Your task to perform on an android device: Clear the shopping cart on costco.com. Add "sony triple a" to the cart on costco.com, then select checkout. Image 0: 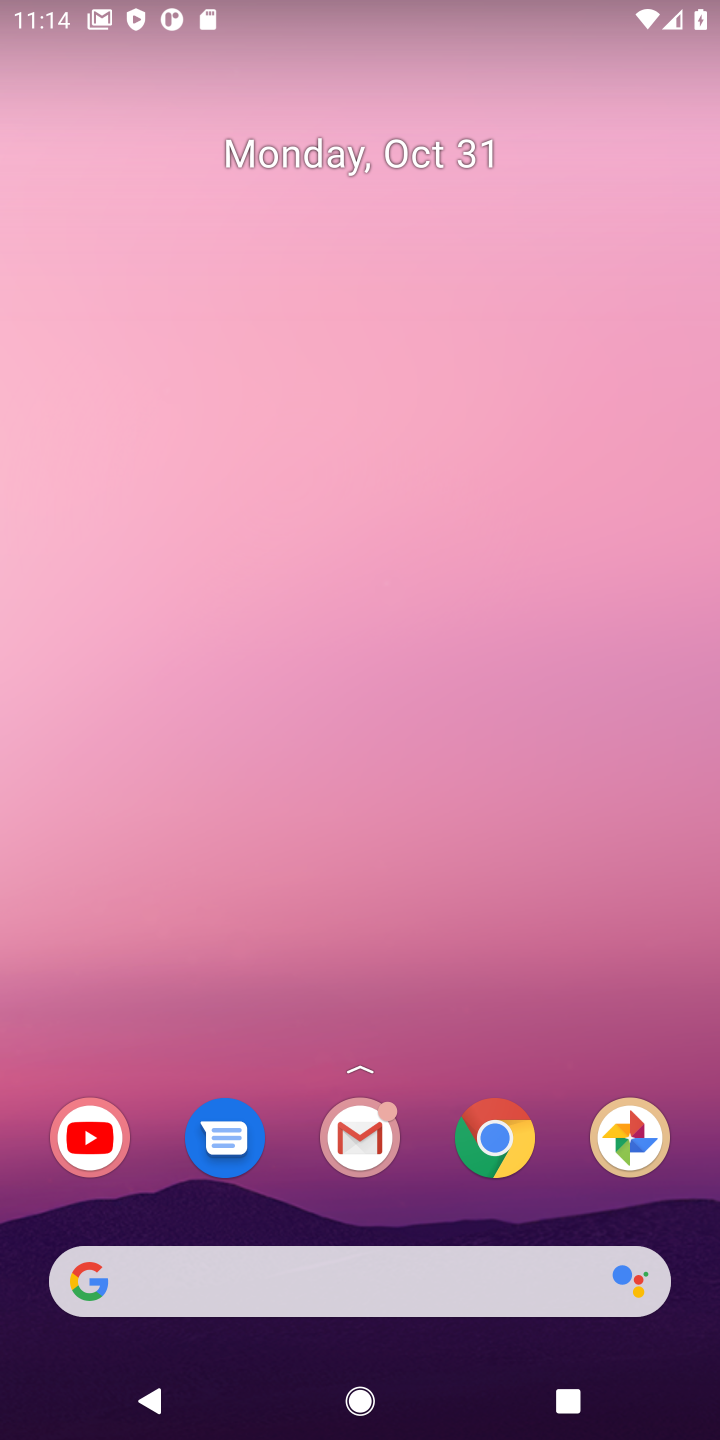
Step 0: click (477, 1128)
Your task to perform on an android device: Clear the shopping cart on costco.com. Add "sony triple a" to the cart on costco.com, then select checkout. Image 1: 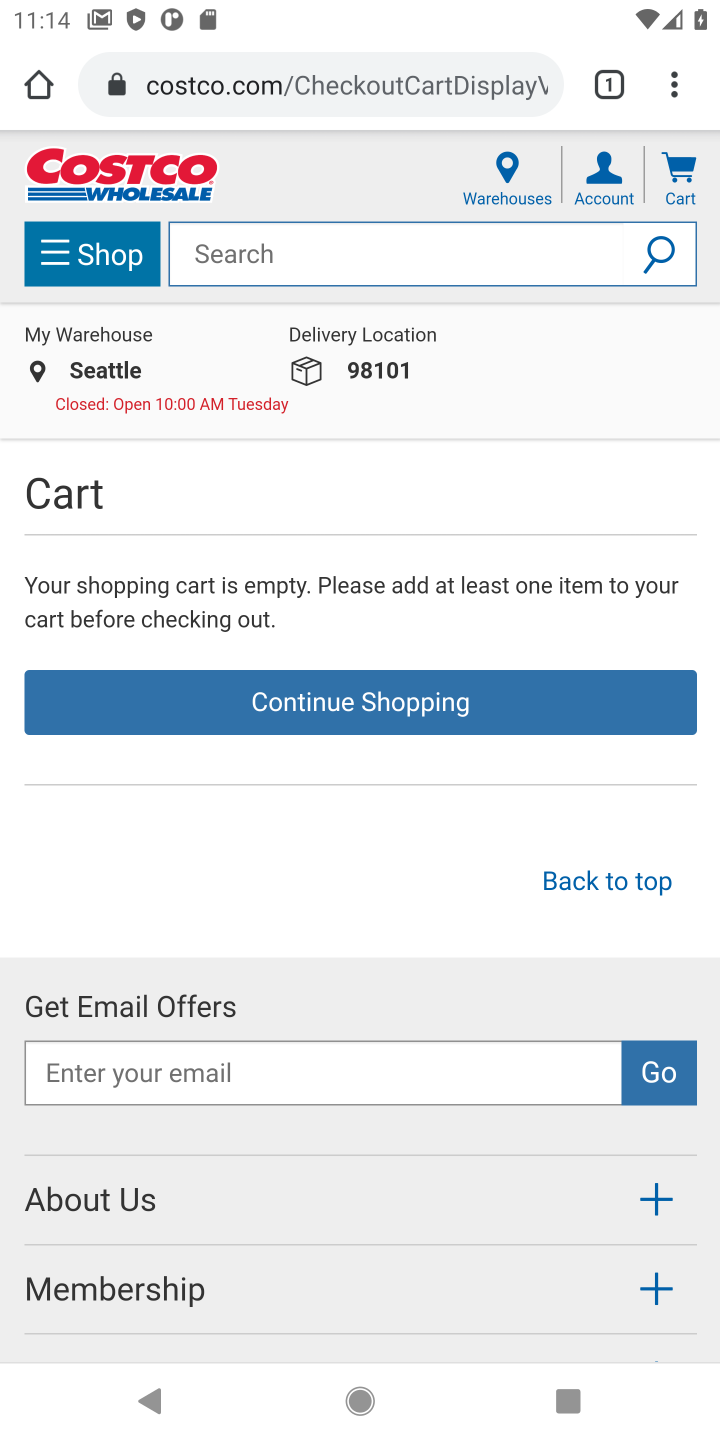
Step 1: click (246, 238)
Your task to perform on an android device: Clear the shopping cart on costco.com. Add "sony triple a" to the cart on costco.com, then select checkout. Image 2: 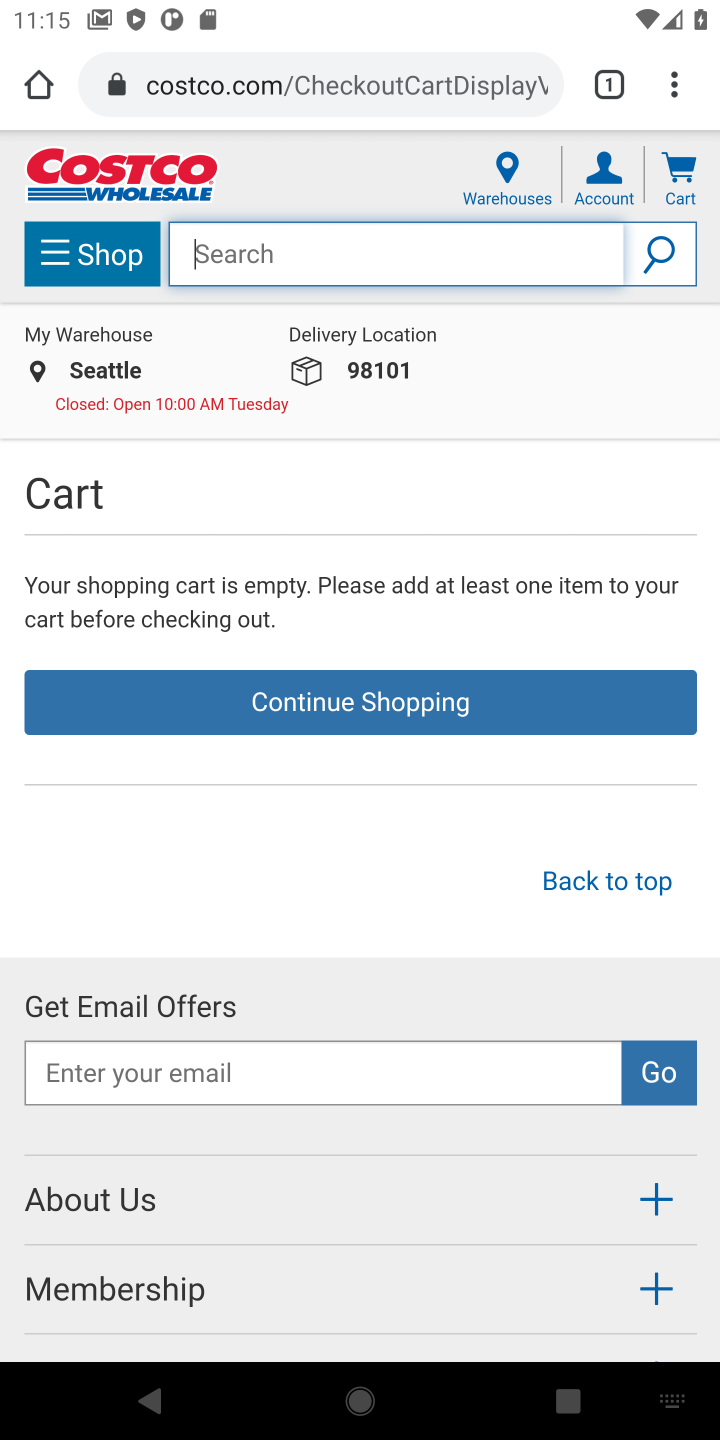
Step 2: type "sony triple a"
Your task to perform on an android device: Clear the shopping cart on costco.com. Add "sony triple a" to the cart on costco.com, then select checkout. Image 3: 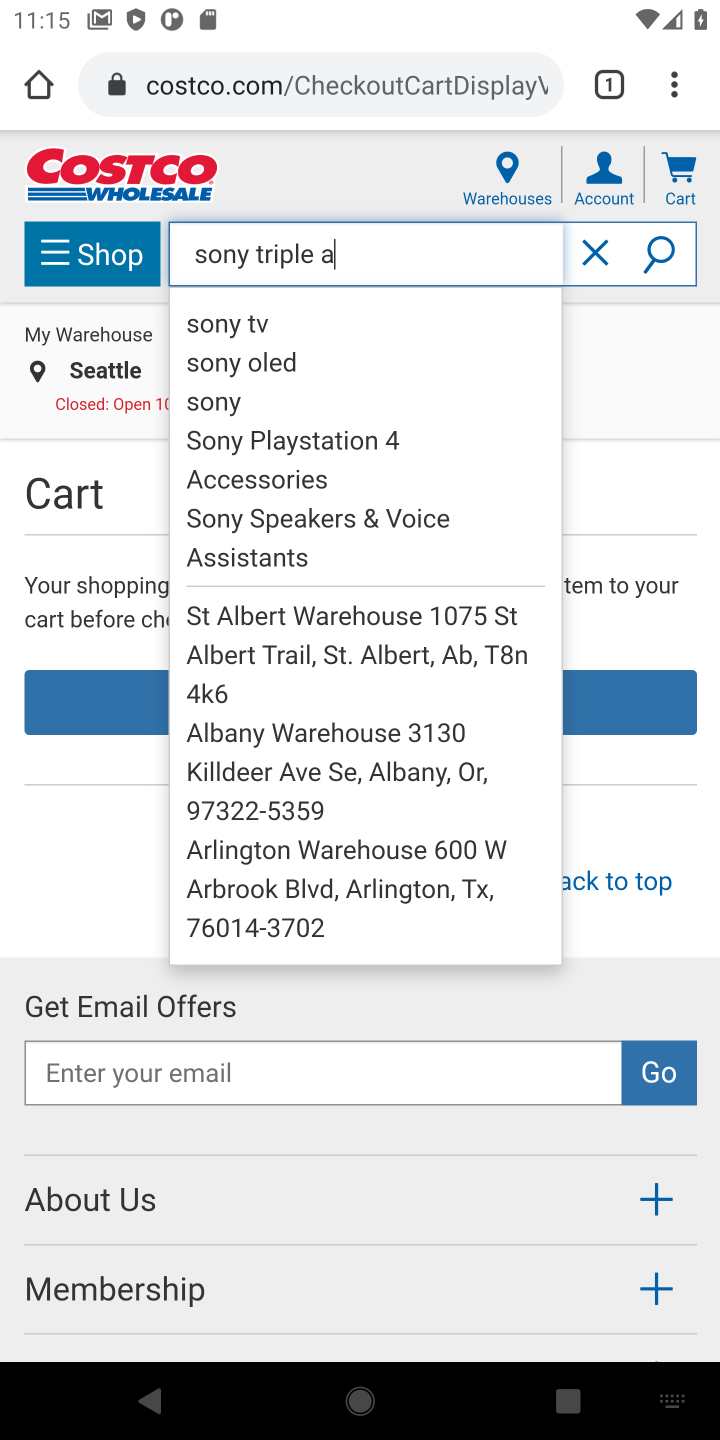
Step 3: click (647, 251)
Your task to perform on an android device: Clear the shopping cart on costco.com. Add "sony triple a" to the cart on costco.com, then select checkout. Image 4: 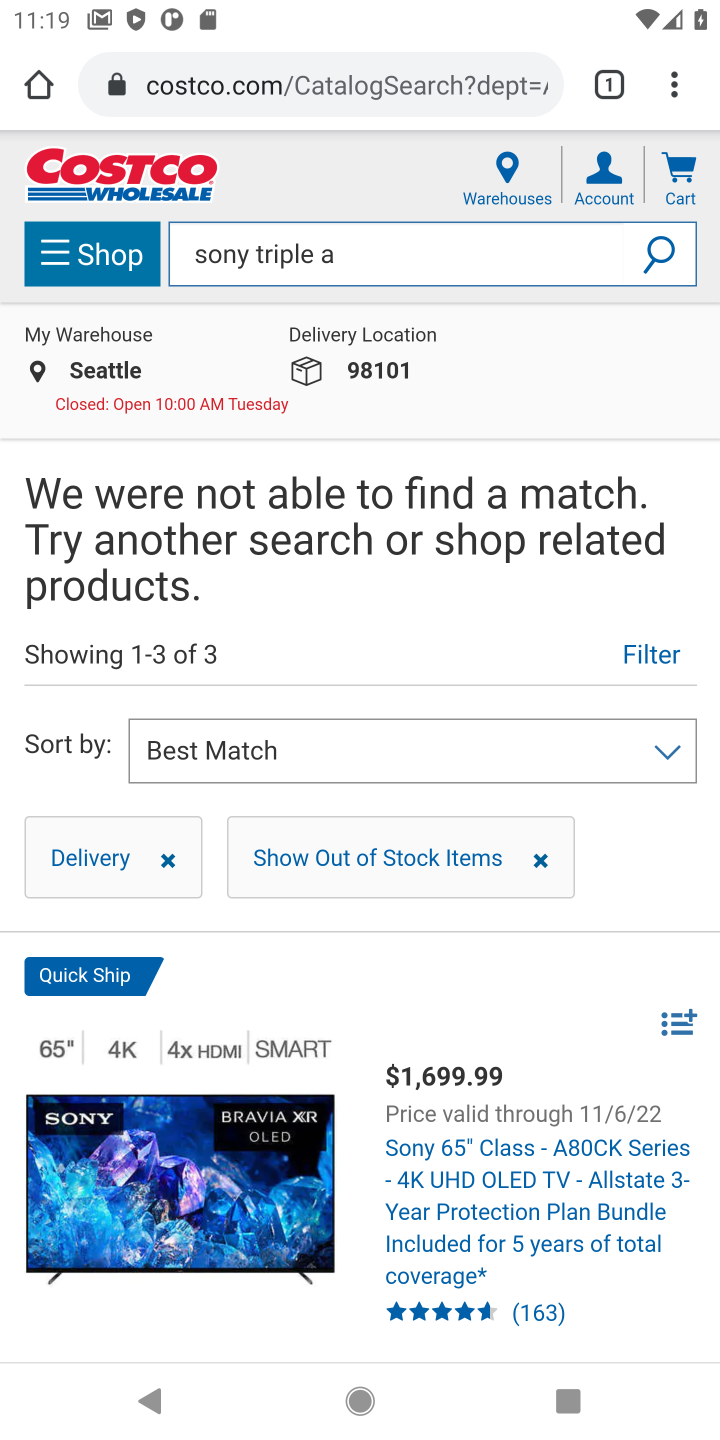
Step 4: task complete